Your task to perform on an android device: toggle javascript in the chrome app Image 0: 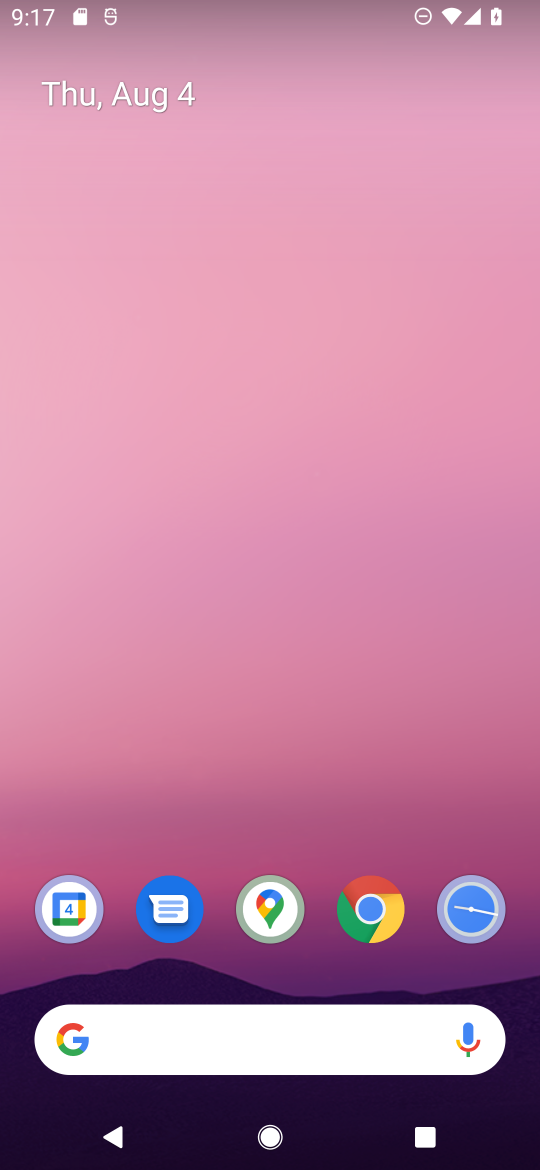
Step 0: press home button
Your task to perform on an android device: toggle javascript in the chrome app Image 1: 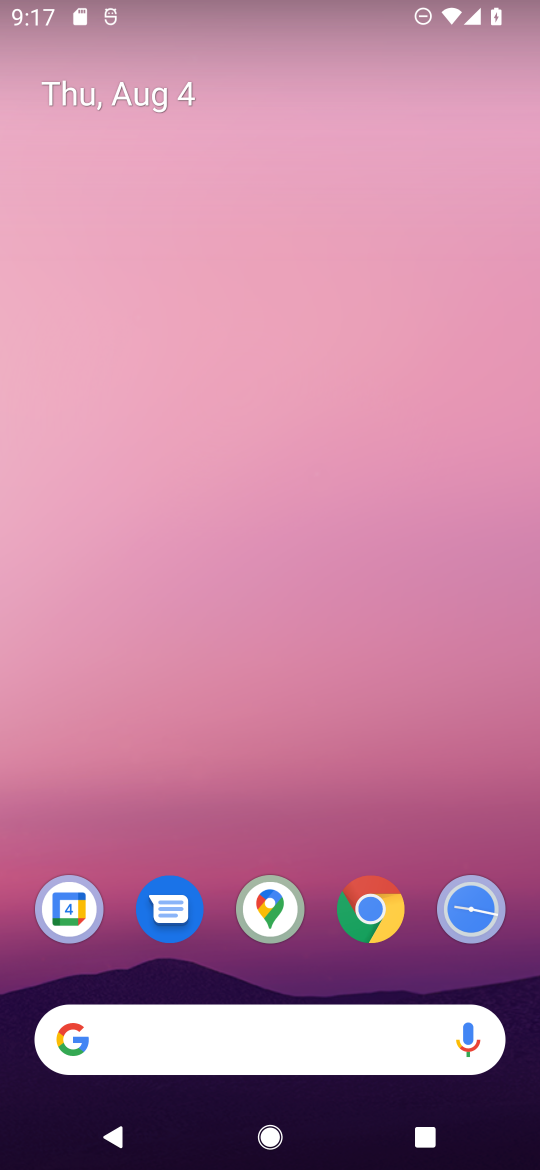
Step 1: drag from (312, 851) to (334, 191)
Your task to perform on an android device: toggle javascript in the chrome app Image 2: 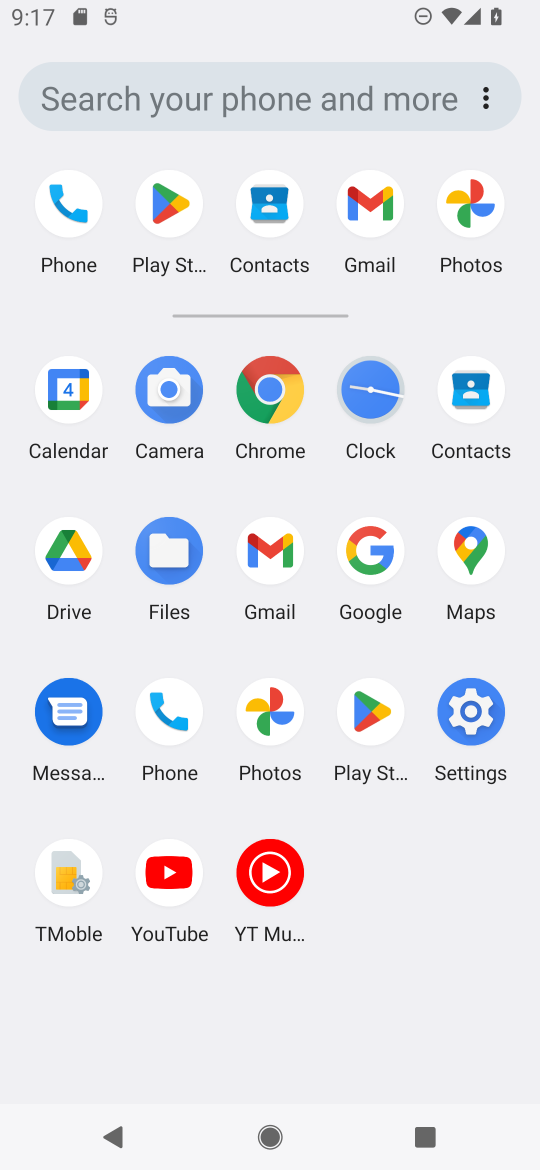
Step 2: click (269, 395)
Your task to perform on an android device: toggle javascript in the chrome app Image 3: 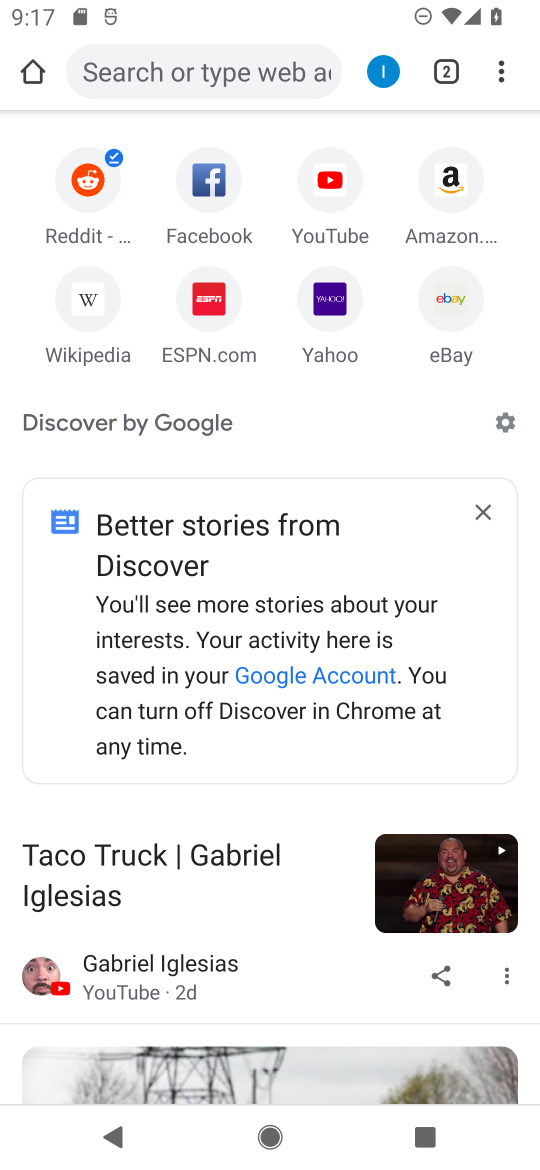
Step 3: click (502, 72)
Your task to perform on an android device: toggle javascript in the chrome app Image 4: 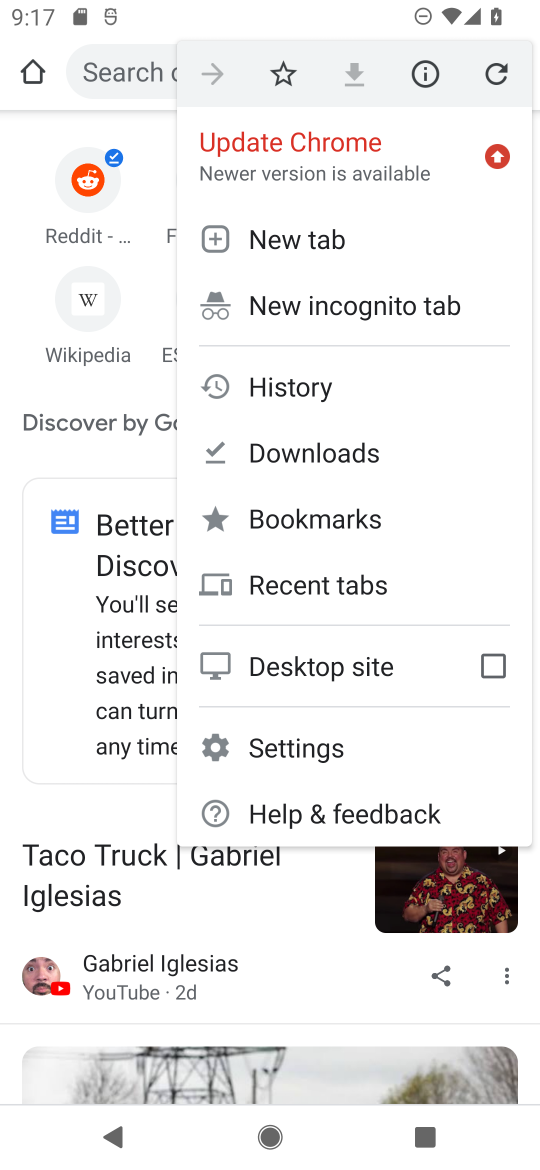
Step 4: click (318, 752)
Your task to perform on an android device: toggle javascript in the chrome app Image 5: 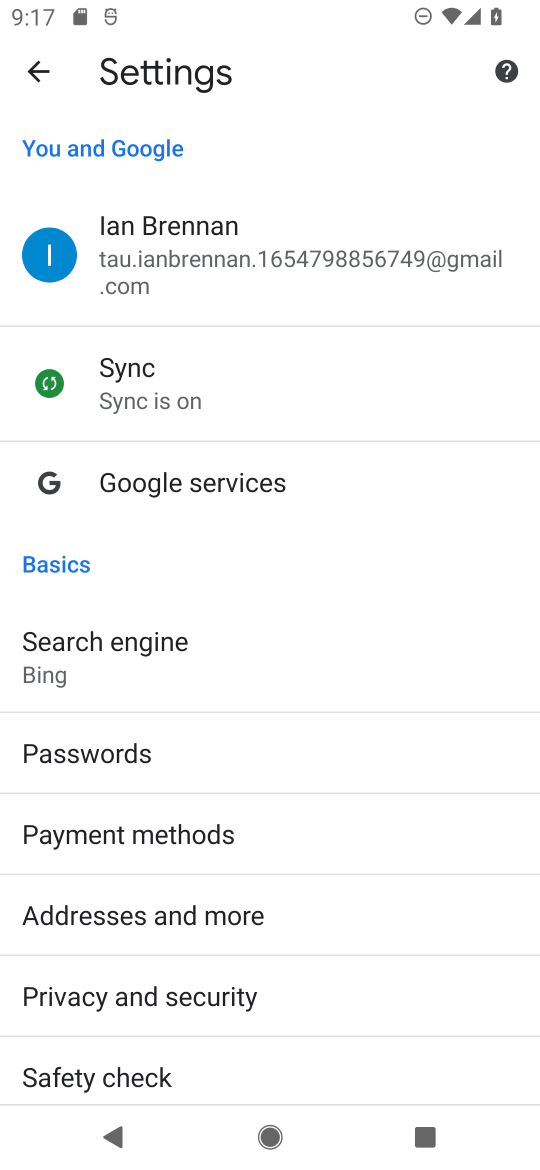
Step 5: drag from (391, 905) to (412, 679)
Your task to perform on an android device: toggle javascript in the chrome app Image 6: 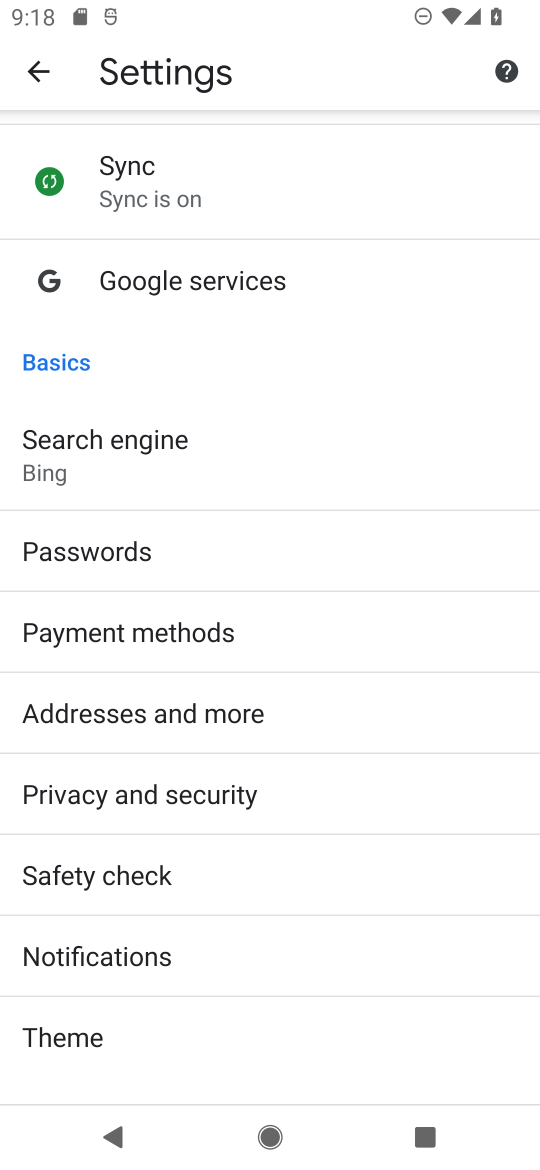
Step 6: drag from (381, 876) to (393, 659)
Your task to perform on an android device: toggle javascript in the chrome app Image 7: 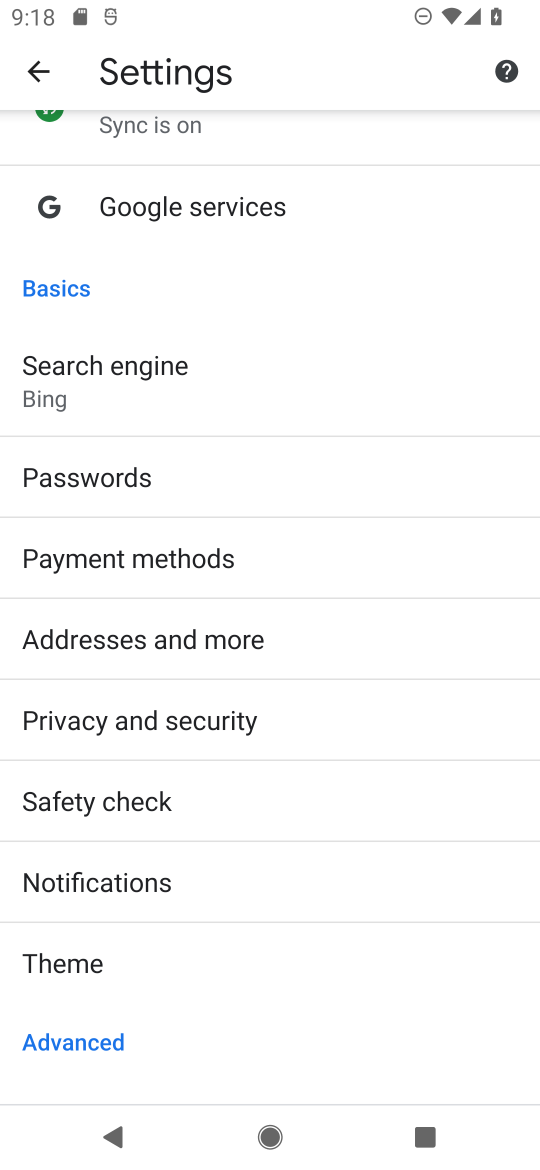
Step 7: drag from (388, 928) to (410, 642)
Your task to perform on an android device: toggle javascript in the chrome app Image 8: 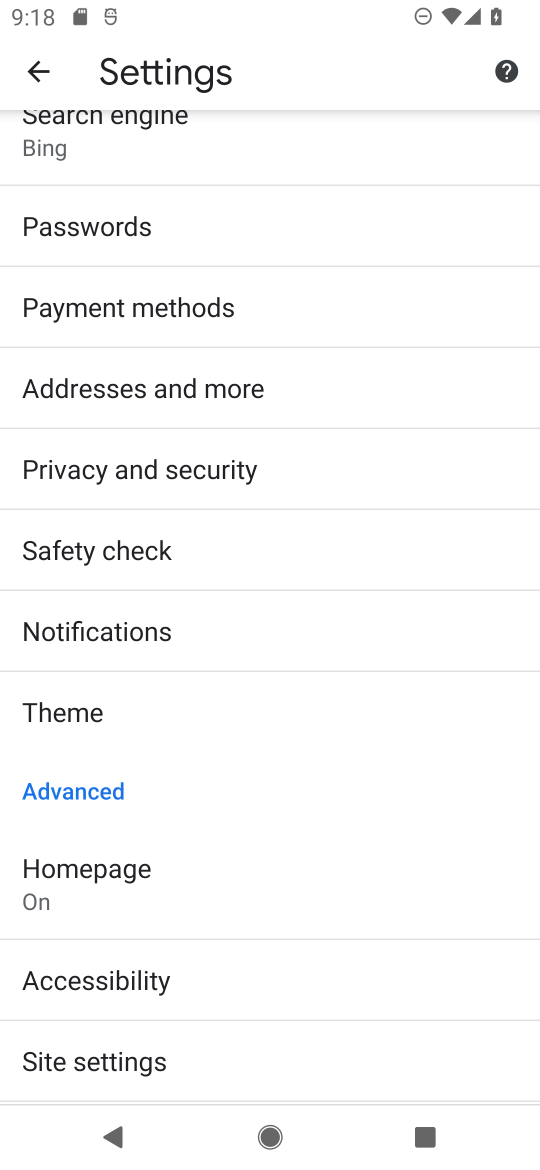
Step 8: drag from (378, 953) to (379, 761)
Your task to perform on an android device: toggle javascript in the chrome app Image 9: 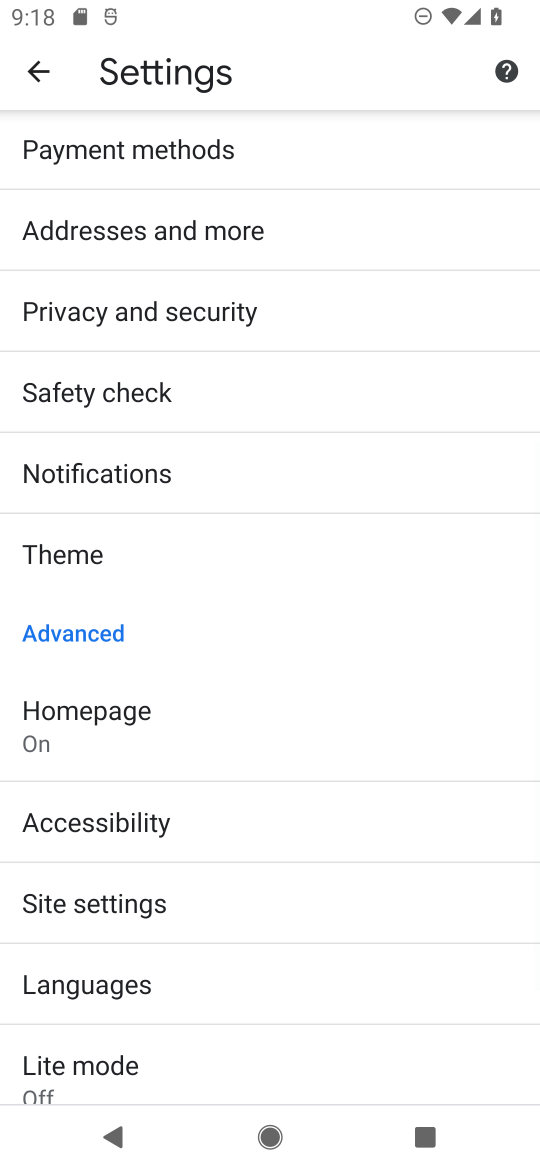
Step 9: drag from (372, 1022) to (399, 788)
Your task to perform on an android device: toggle javascript in the chrome app Image 10: 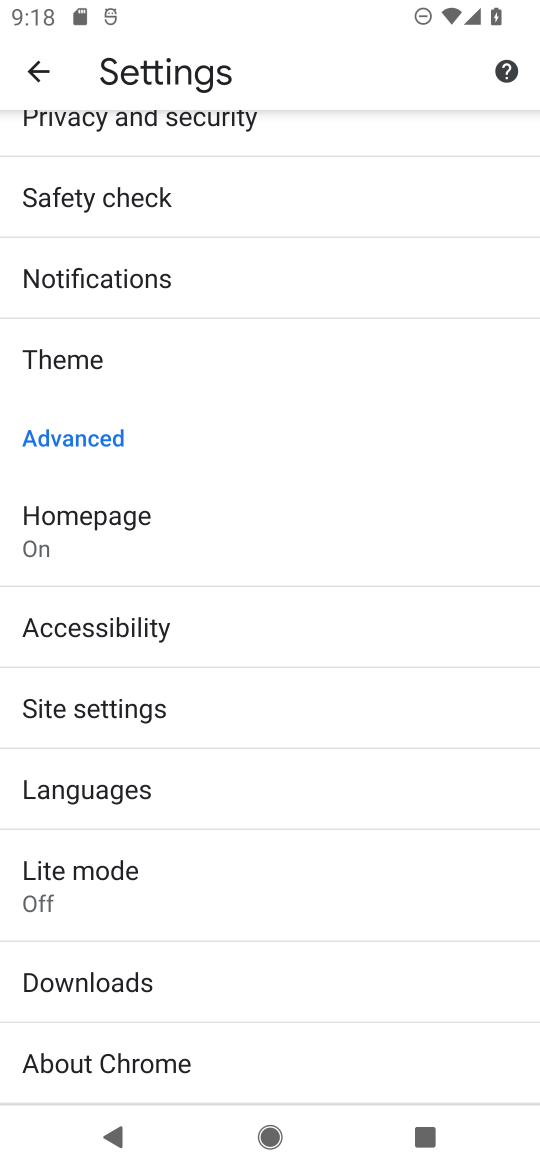
Step 10: drag from (386, 1011) to (402, 753)
Your task to perform on an android device: toggle javascript in the chrome app Image 11: 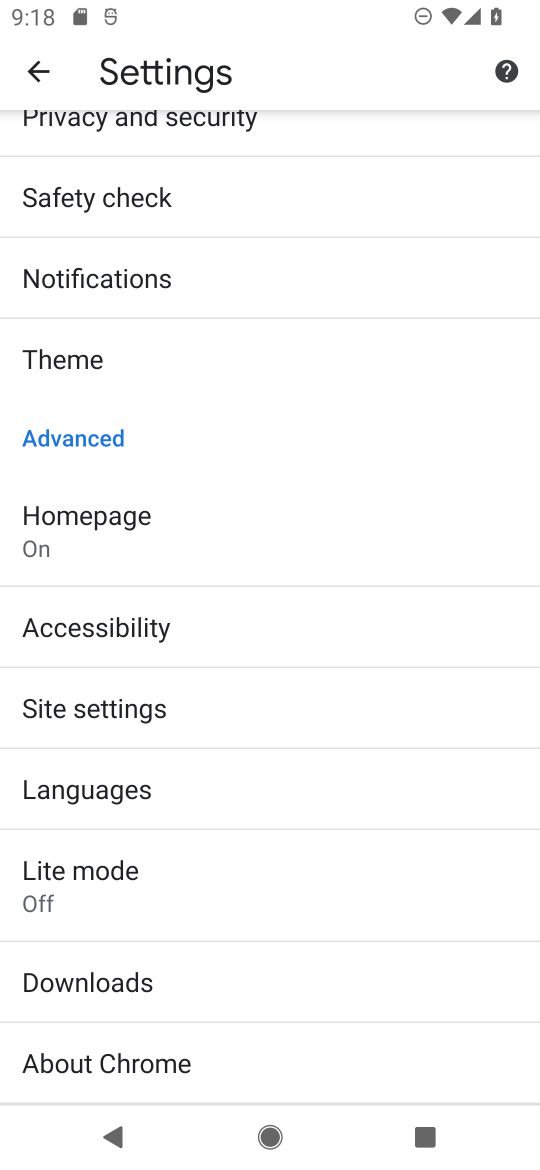
Step 11: drag from (386, 478) to (380, 733)
Your task to perform on an android device: toggle javascript in the chrome app Image 12: 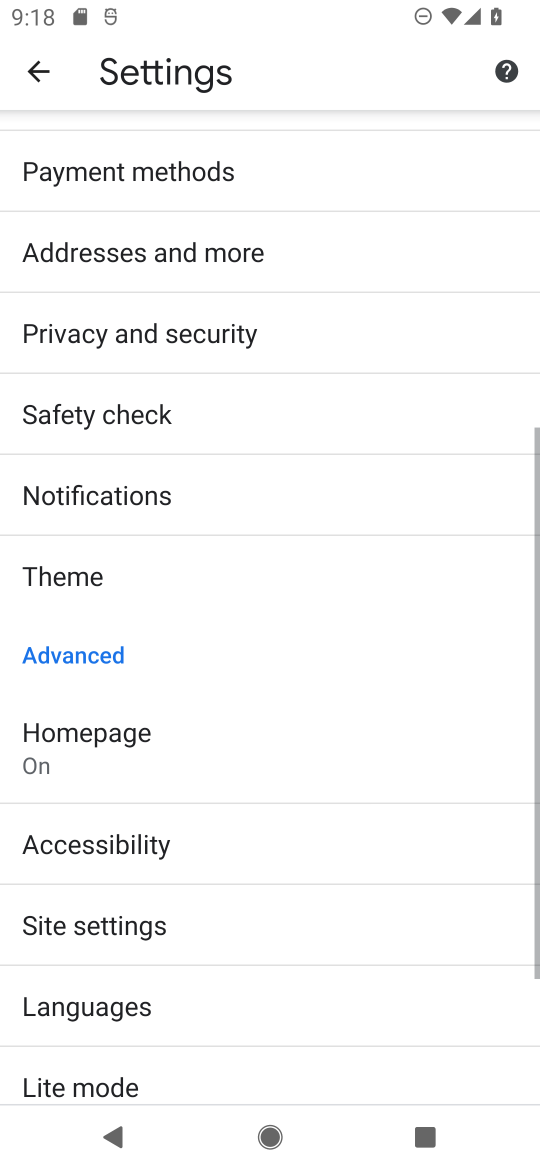
Step 12: drag from (421, 364) to (424, 612)
Your task to perform on an android device: toggle javascript in the chrome app Image 13: 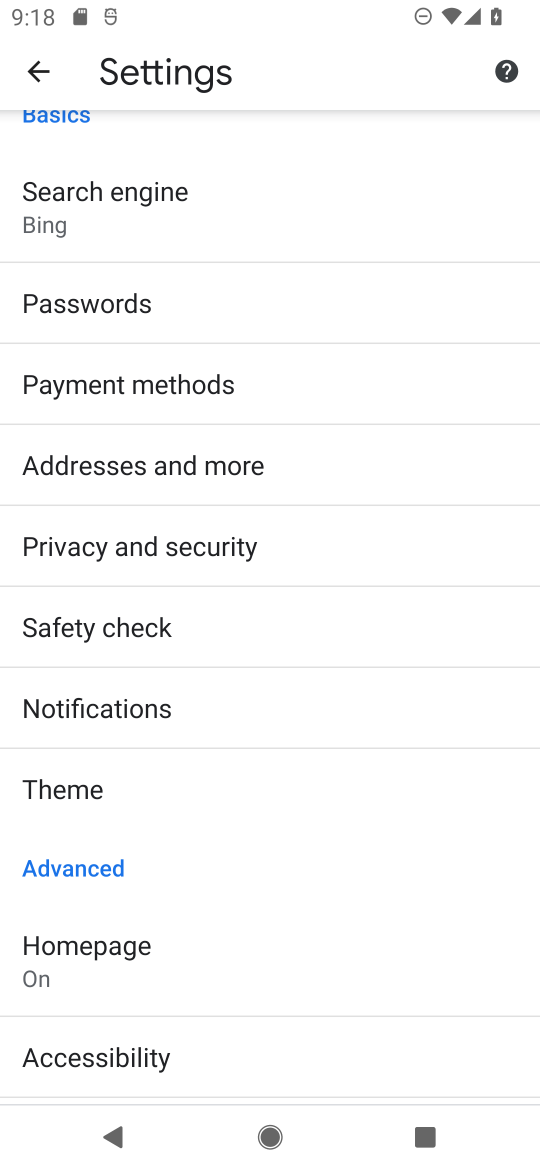
Step 13: drag from (405, 307) to (423, 628)
Your task to perform on an android device: toggle javascript in the chrome app Image 14: 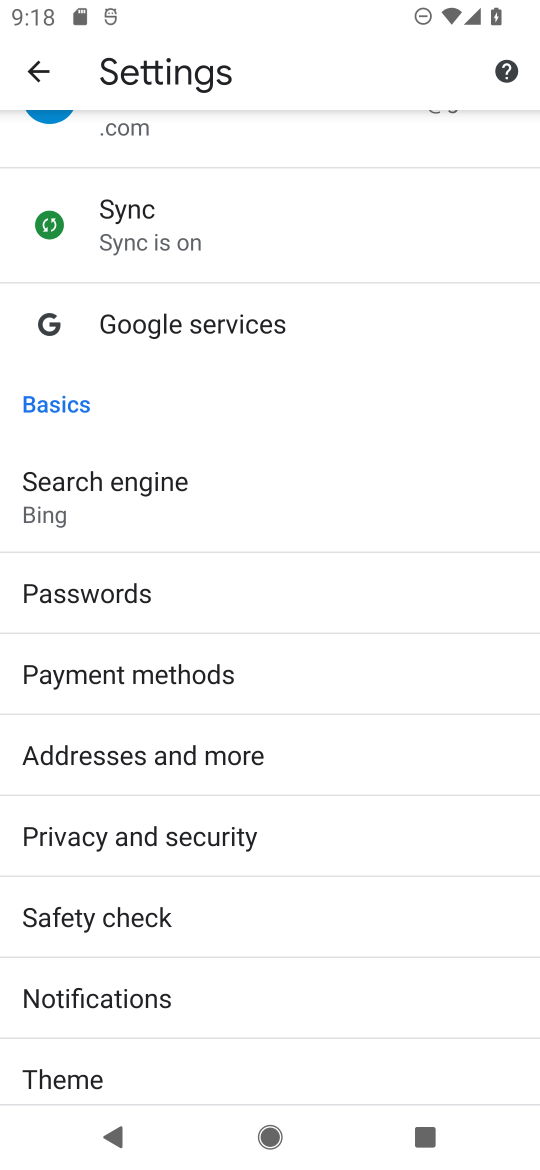
Step 14: drag from (430, 321) to (428, 634)
Your task to perform on an android device: toggle javascript in the chrome app Image 15: 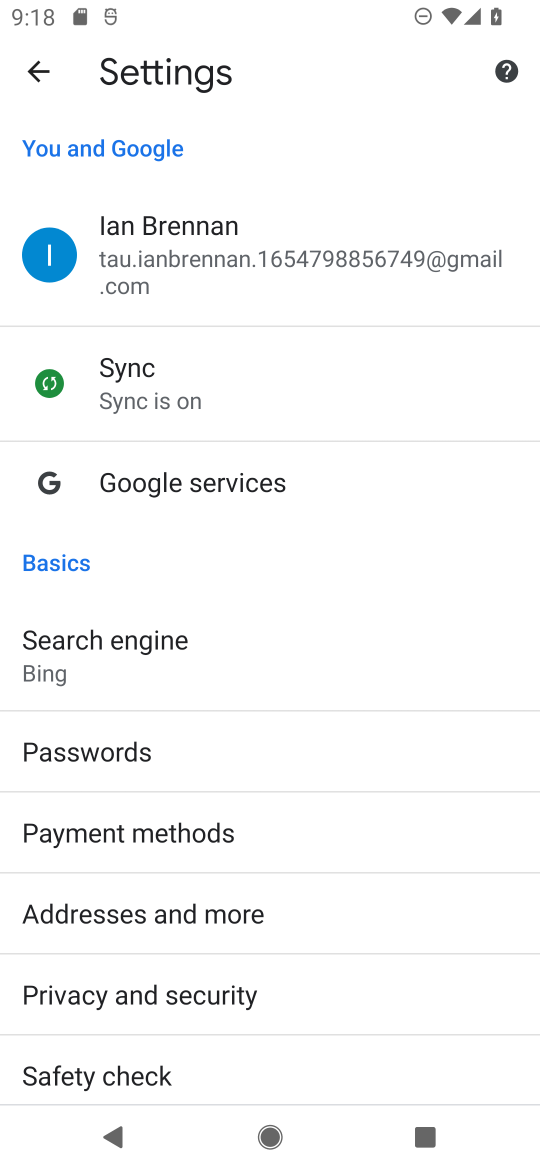
Step 15: drag from (391, 799) to (390, 598)
Your task to perform on an android device: toggle javascript in the chrome app Image 16: 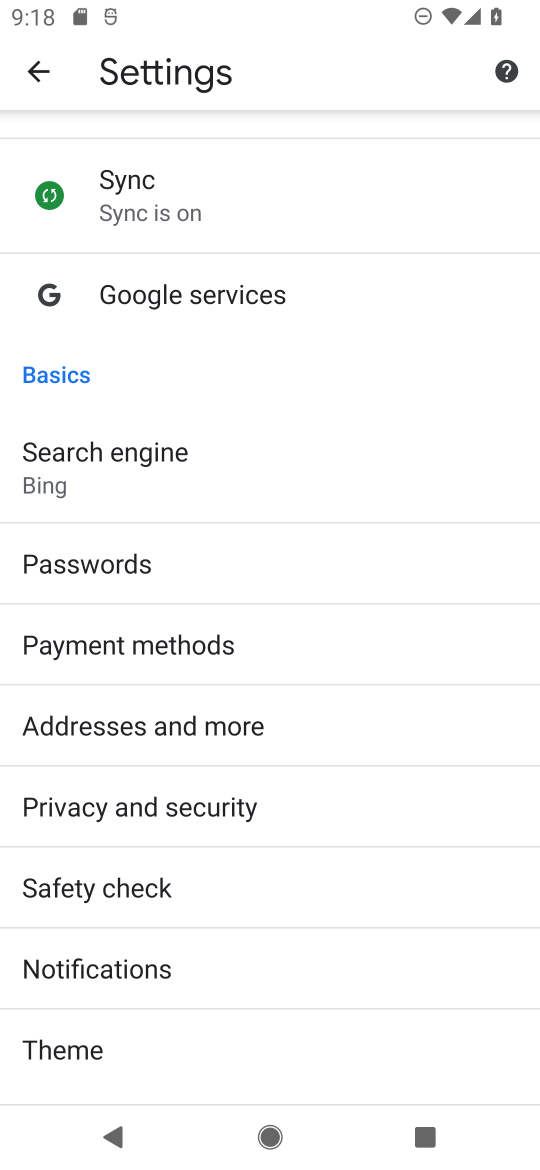
Step 16: drag from (387, 810) to (397, 613)
Your task to perform on an android device: toggle javascript in the chrome app Image 17: 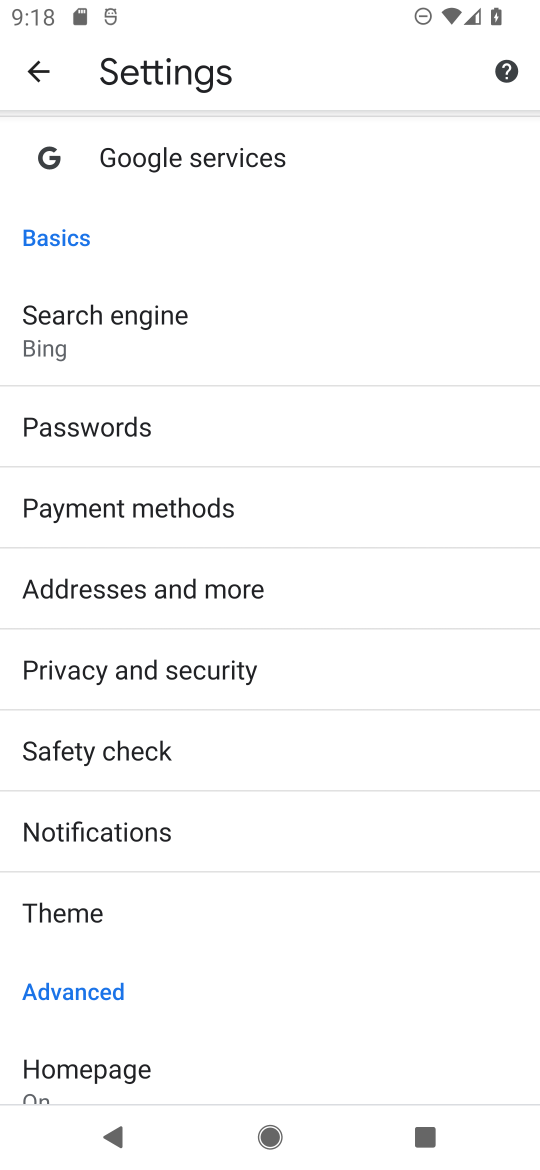
Step 17: drag from (368, 887) to (374, 658)
Your task to perform on an android device: toggle javascript in the chrome app Image 18: 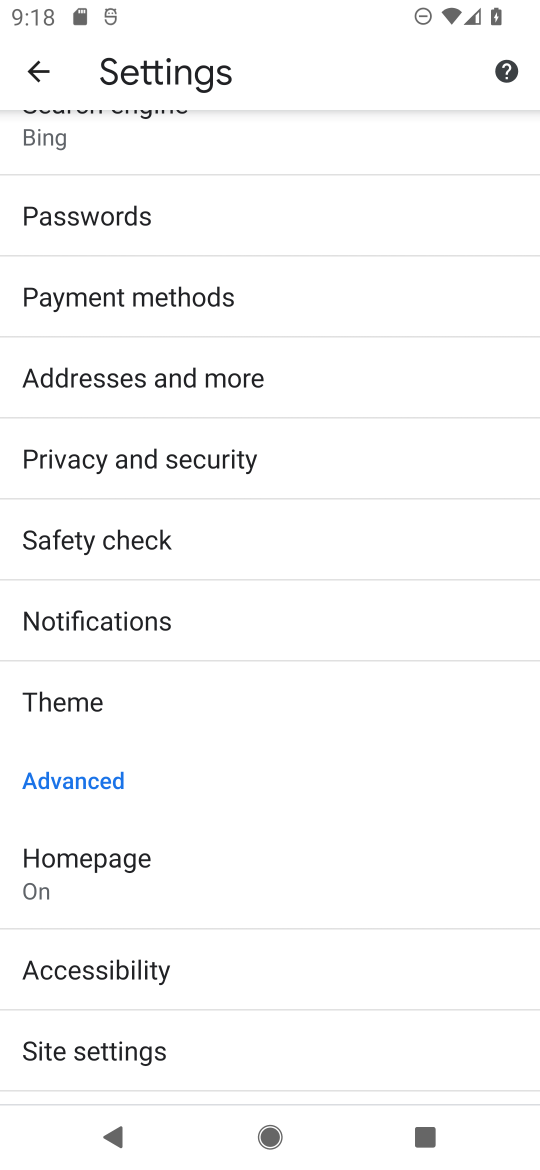
Step 18: drag from (365, 817) to (369, 648)
Your task to perform on an android device: toggle javascript in the chrome app Image 19: 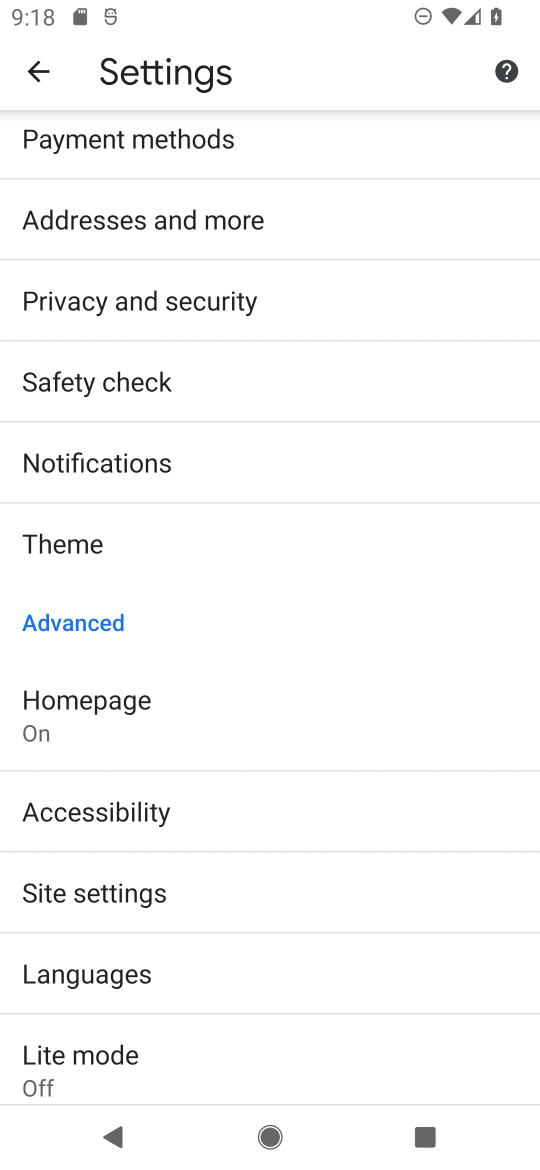
Step 19: click (294, 885)
Your task to perform on an android device: toggle javascript in the chrome app Image 20: 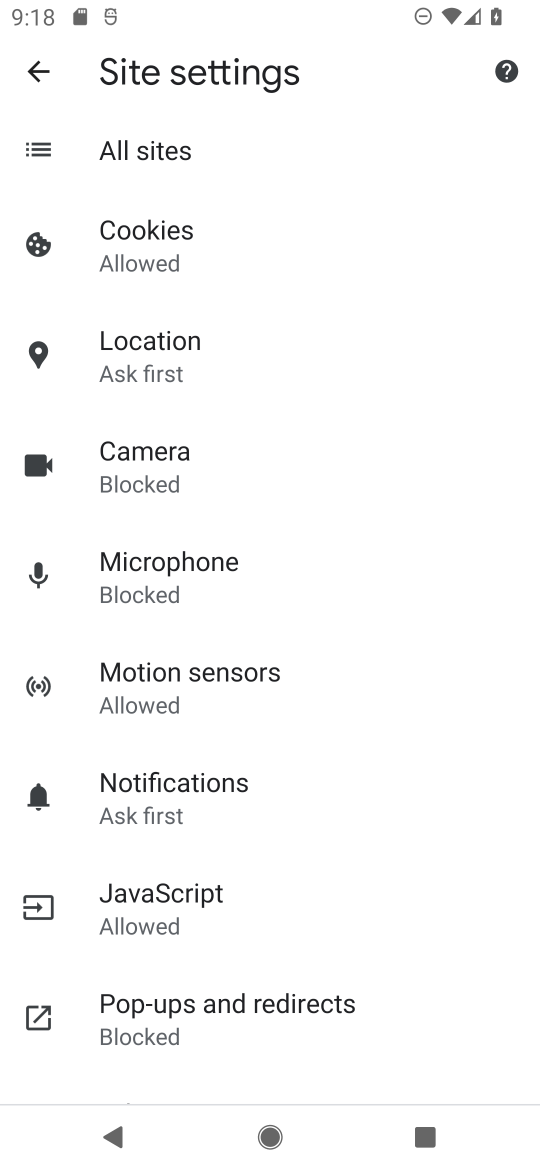
Step 20: click (181, 911)
Your task to perform on an android device: toggle javascript in the chrome app Image 21: 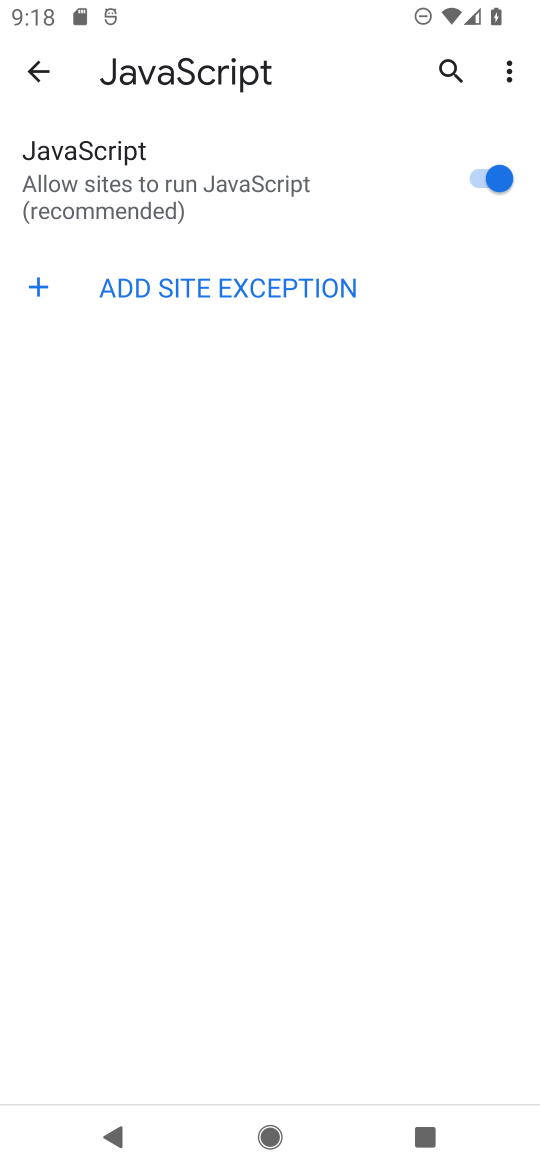
Step 21: click (491, 171)
Your task to perform on an android device: toggle javascript in the chrome app Image 22: 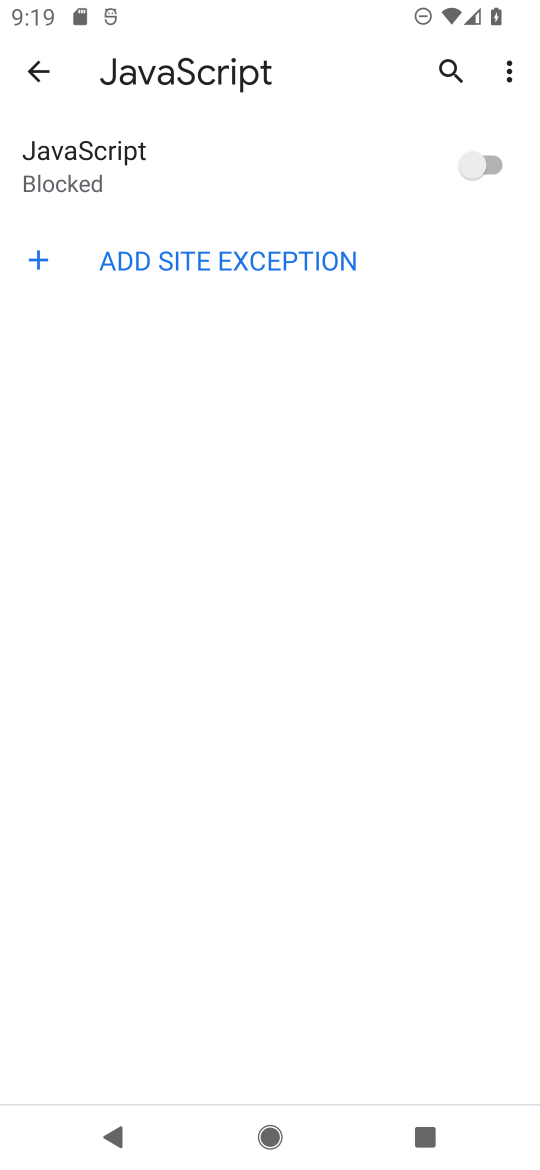
Step 22: task complete